Your task to perform on an android device: Is it going to rain this weekend? Image 0: 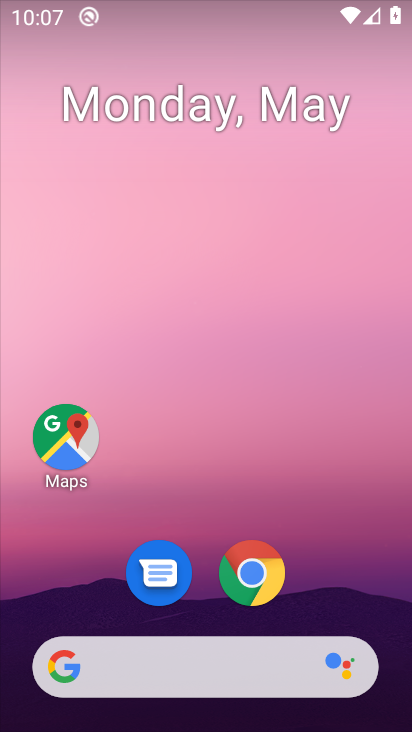
Step 0: drag from (201, 495) to (266, 79)
Your task to perform on an android device: Is it going to rain this weekend? Image 1: 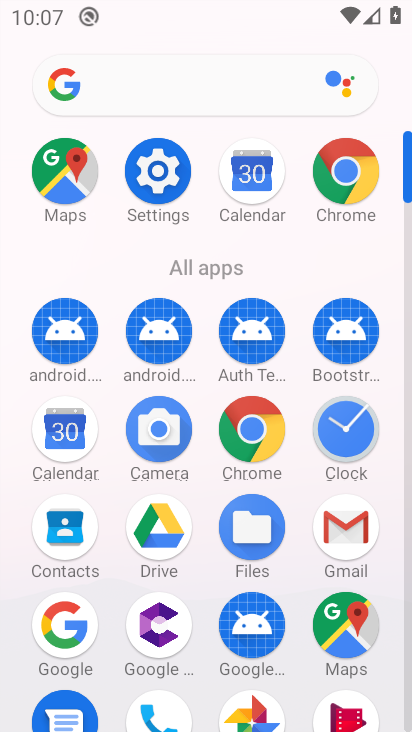
Step 1: click (138, 90)
Your task to perform on an android device: Is it going to rain this weekend? Image 2: 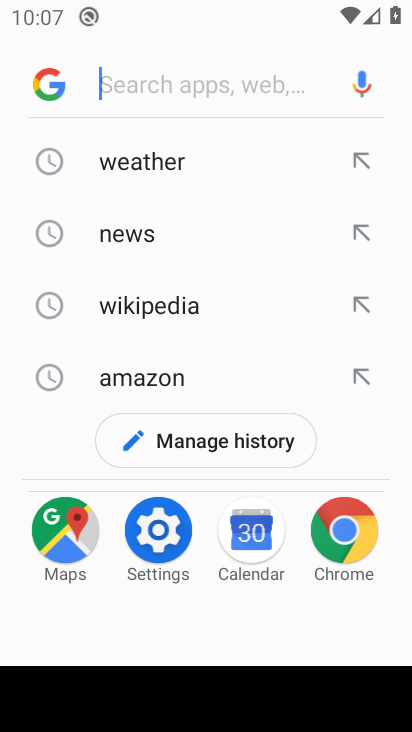
Step 2: click (116, 159)
Your task to perform on an android device: Is it going to rain this weekend? Image 3: 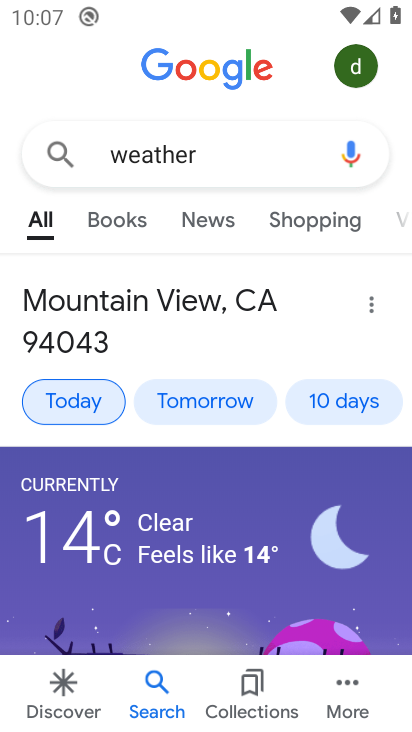
Step 3: click (347, 402)
Your task to perform on an android device: Is it going to rain this weekend? Image 4: 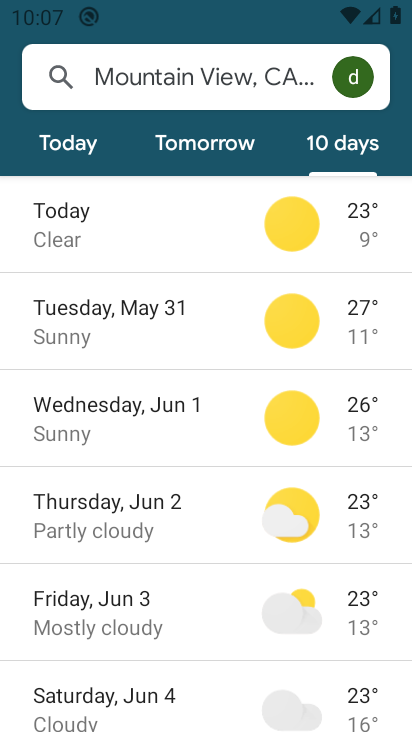
Step 4: task complete